Your task to perform on an android device: Go to eBay Image 0: 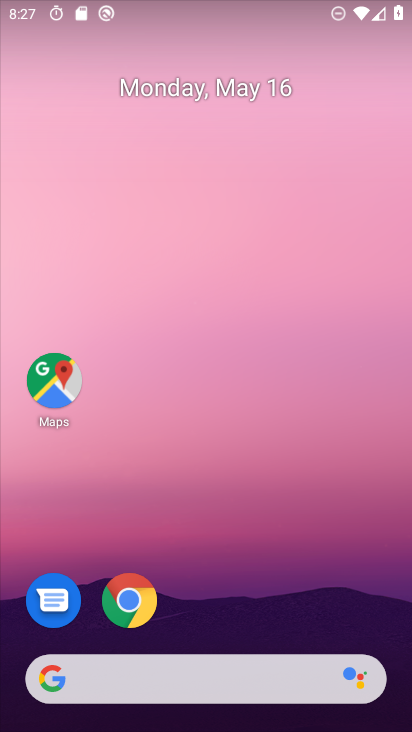
Step 0: click (136, 612)
Your task to perform on an android device: Go to eBay Image 1: 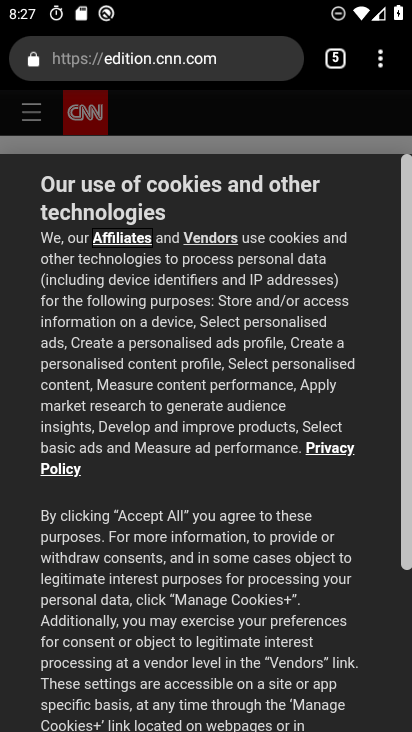
Step 1: drag from (383, 57) to (293, 112)
Your task to perform on an android device: Go to eBay Image 2: 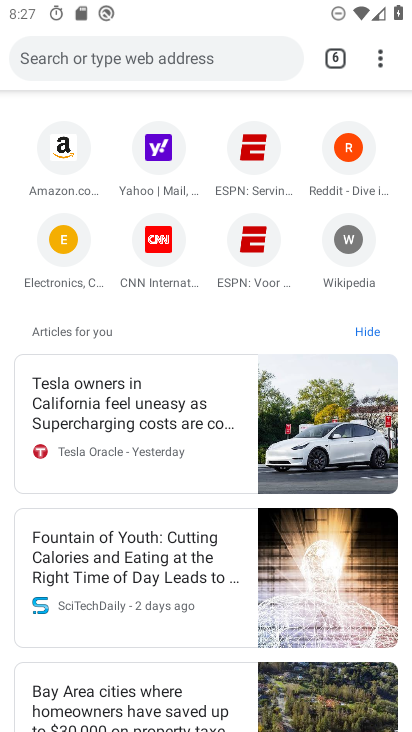
Step 2: click (168, 58)
Your task to perform on an android device: Go to eBay Image 3: 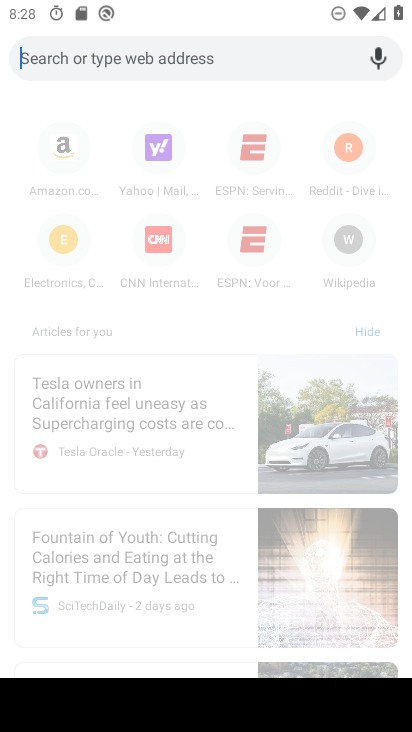
Step 3: type "ebay"
Your task to perform on an android device: Go to eBay Image 4: 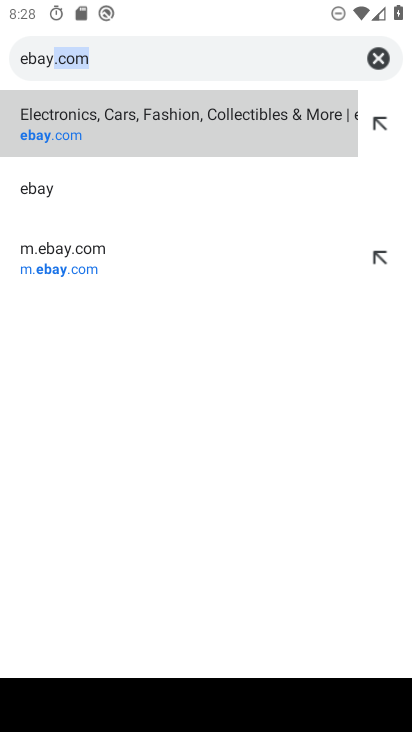
Step 4: click (198, 128)
Your task to perform on an android device: Go to eBay Image 5: 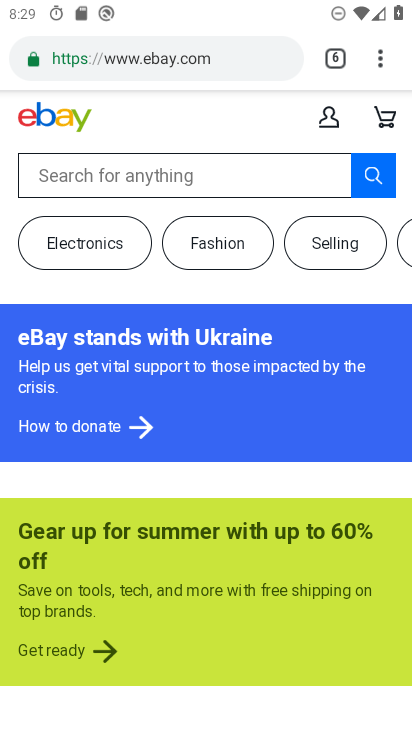
Step 5: task complete